Your task to perform on an android device: toggle javascript in the chrome app Image 0: 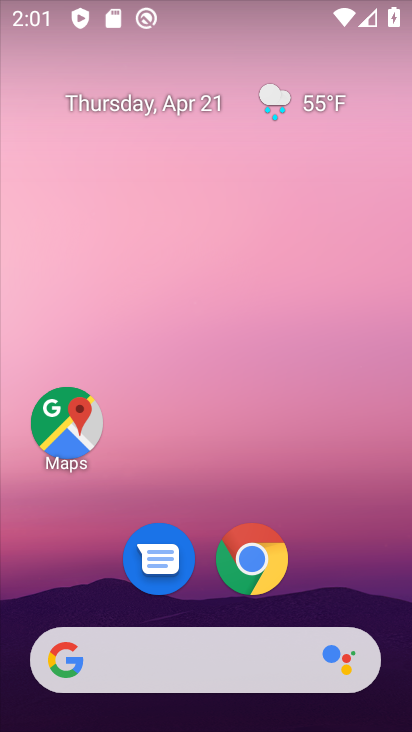
Step 0: drag from (193, 693) to (382, 241)
Your task to perform on an android device: toggle javascript in the chrome app Image 1: 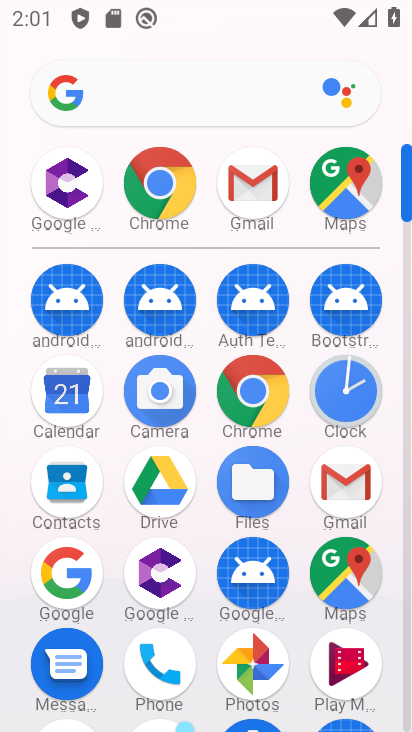
Step 1: click (256, 79)
Your task to perform on an android device: toggle javascript in the chrome app Image 2: 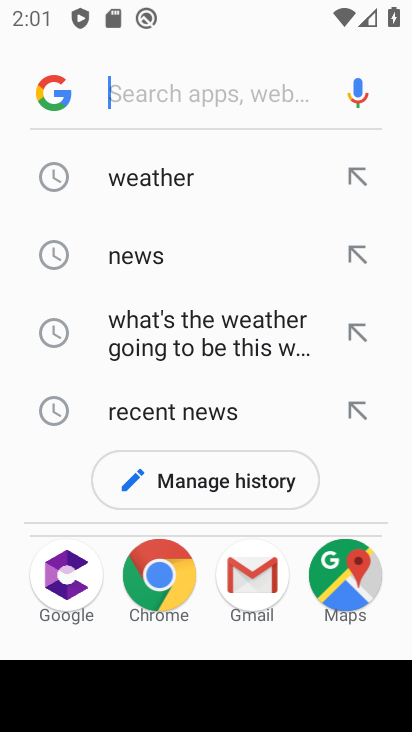
Step 2: click (185, 571)
Your task to perform on an android device: toggle javascript in the chrome app Image 3: 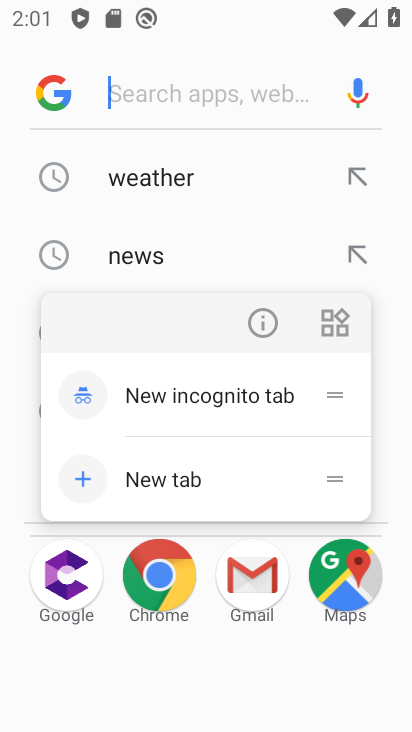
Step 3: click (185, 571)
Your task to perform on an android device: toggle javascript in the chrome app Image 4: 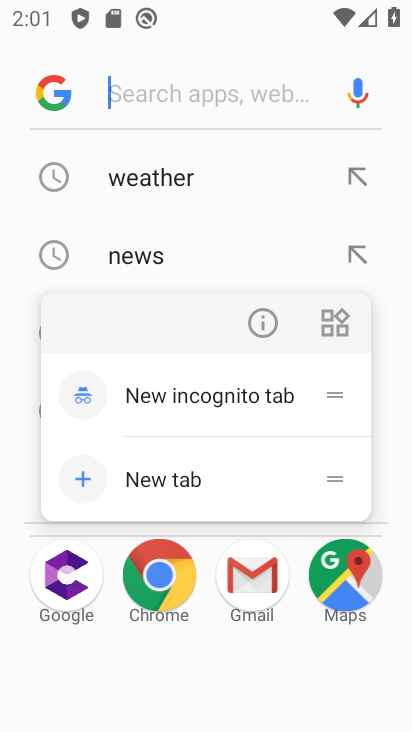
Step 4: click (153, 587)
Your task to perform on an android device: toggle javascript in the chrome app Image 5: 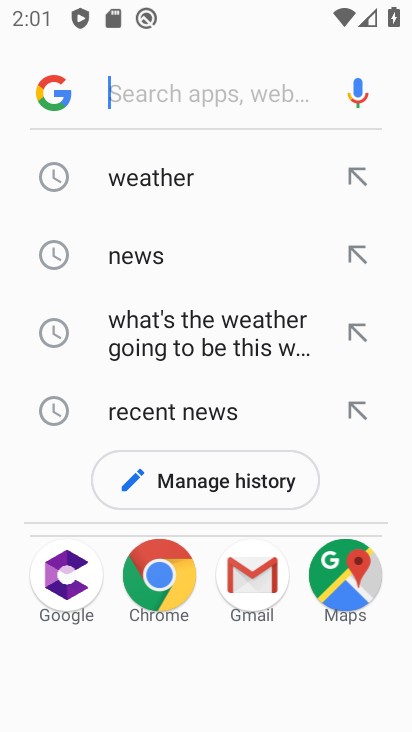
Step 5: click (153, 587)
Your task to perform on an android device: toggle javascript in the chrome app Image 6: 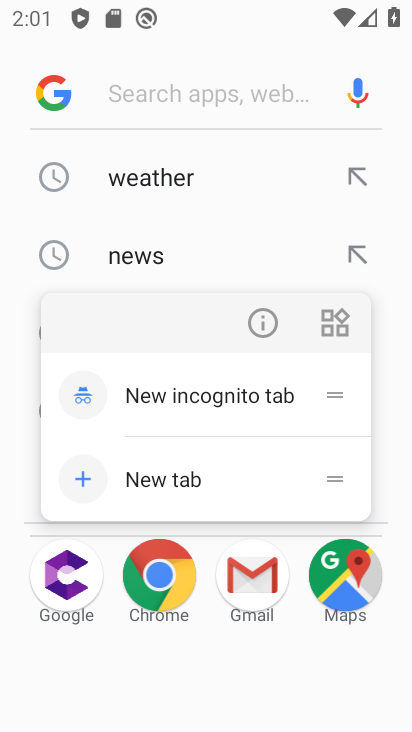
Step 6: click (153, 587)
Your task to perform on an android device: toggle javascript in the chrome app Image 7: 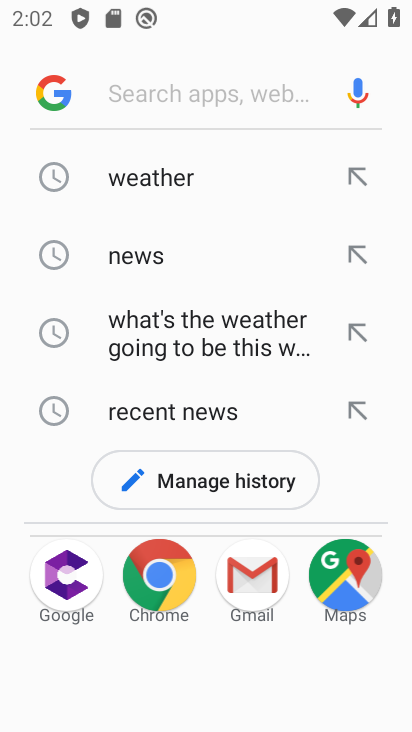
Step 7: click (153, 587)
Your task to perform on an android device: toggle javascript in the chrome app Image 8: 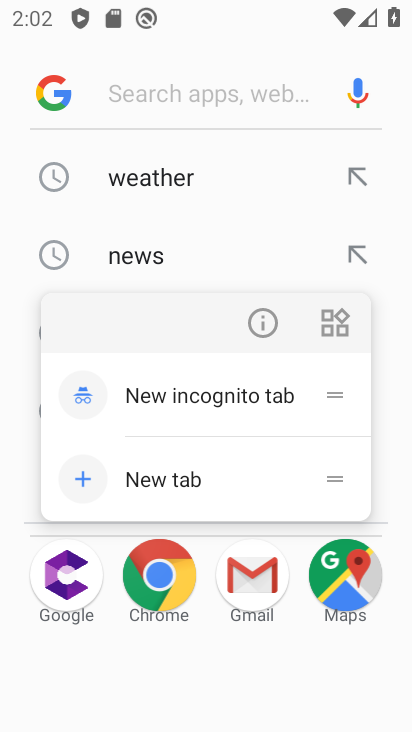
Step 8: click (153, 587)
Your task to perform on an android device: toggle javascript in the chrome app Image 9: 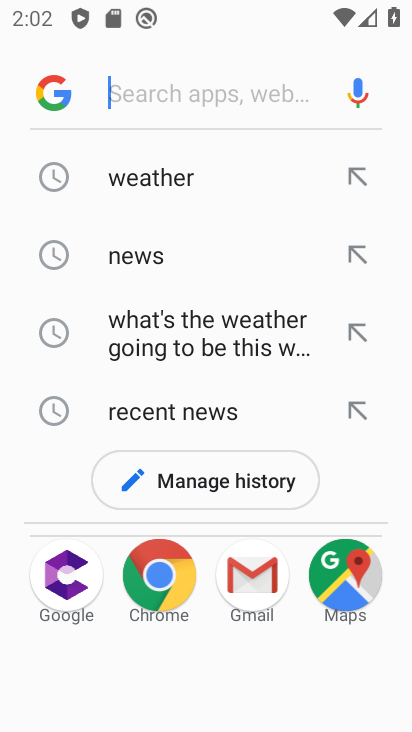
Step 9: click (153, 587)
Your task to perform on an android device: toggle javascript in the chrome app Image 10: 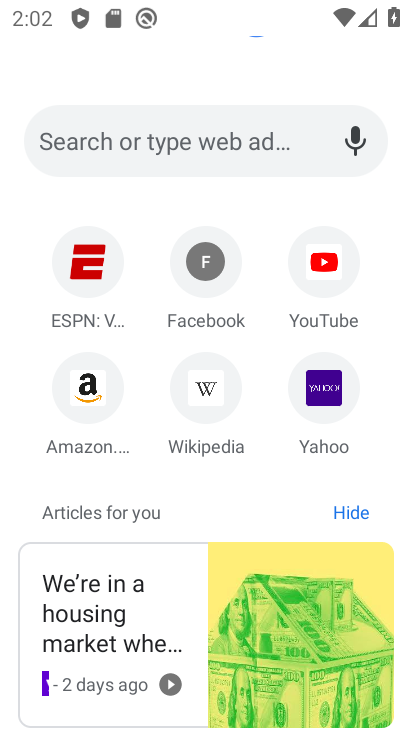
Step 10: click (162, 146)
Your task to perform on an android device: toggle javascript in the chrome app Image 11: 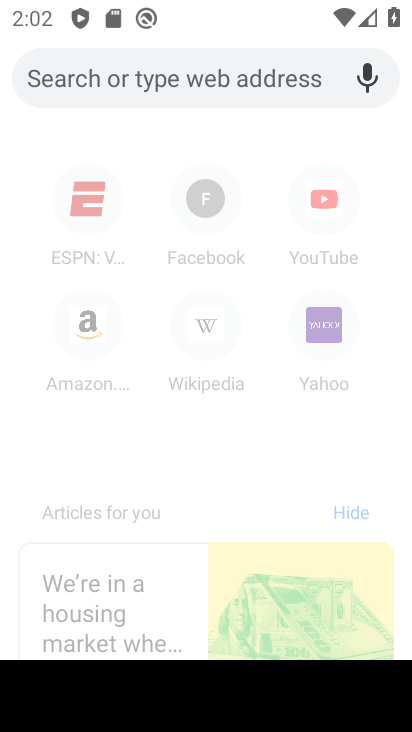
Step 11: task complete